Your task to perform on an android device: Open notification settings Image 0: 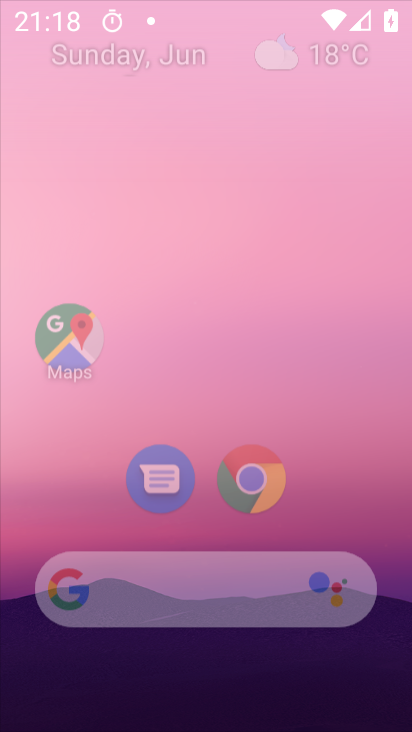
Step 0: click (333, 43)
Your task to perform on an android device: Open notification settings Image 1: 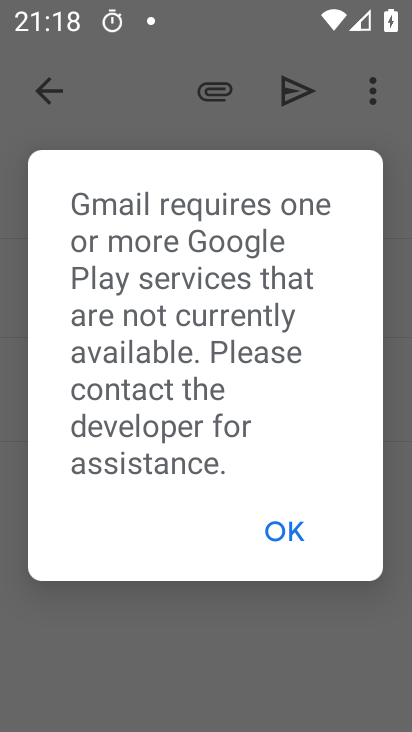
Step 1: press home button
Your task to perform on an android device: Open notification settings Image 2: 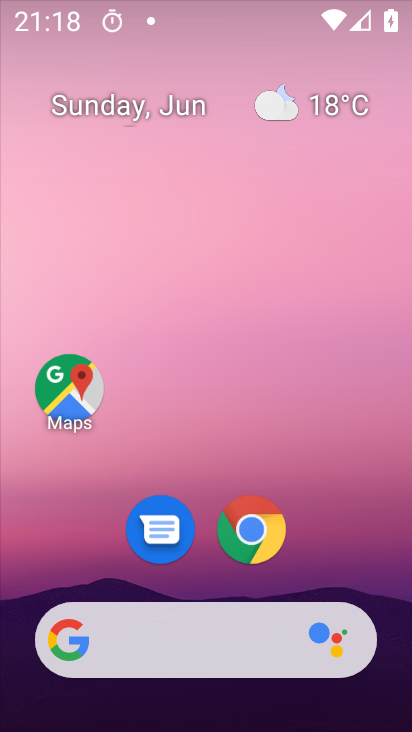
Step 2: drag from (311, 513) to (315, 44)
Your task to perform on an android device: Open notification settings Image 3: 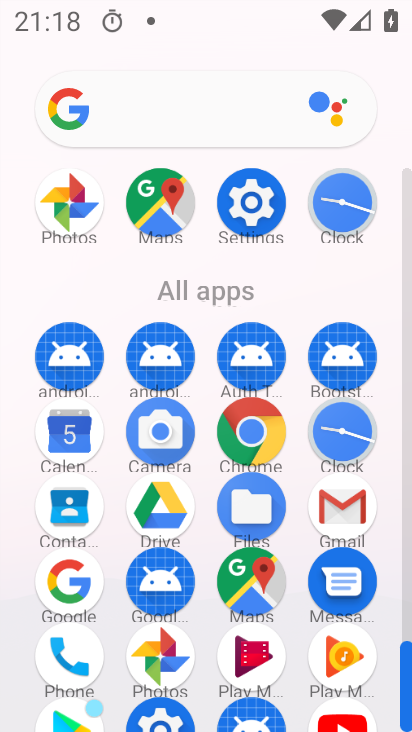
Step 3: click (252, 198)
Your task to perform on an android device: Open notification settings Image 4: 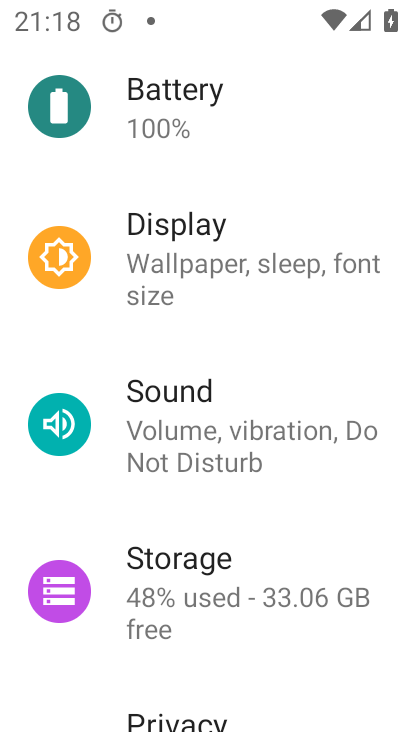
Step 4: drag from (267, 228) to (344, 620)
Your task to perform on an android device: Open notification settings Image 5: 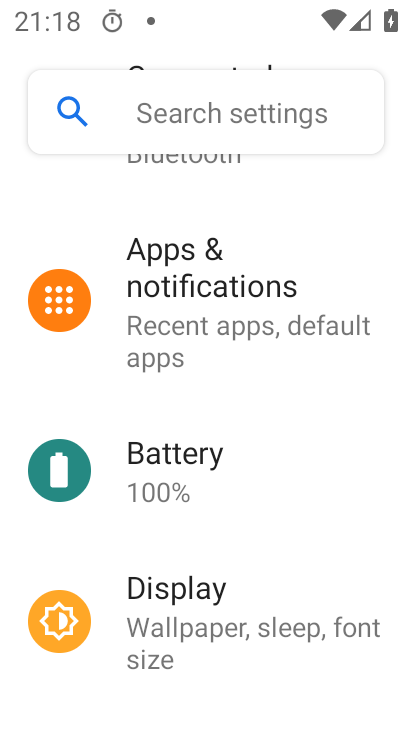
Step 5: click (214, 320)
Your task to perform on an android device: Open notification settings Image 6: 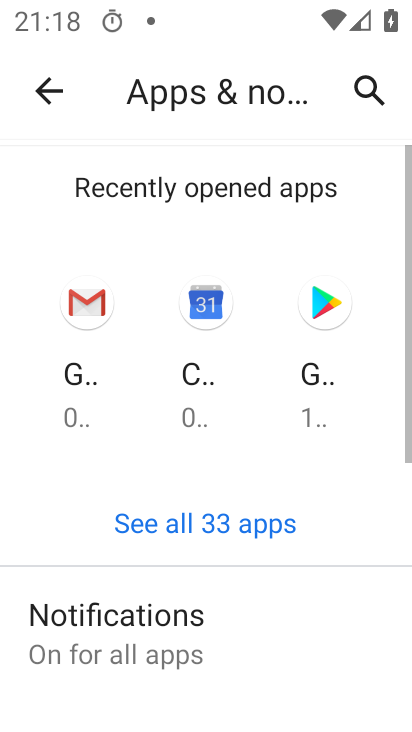
Step 6: click (184, 629)
Your task to perform on an android device: Open notification settings Image 7: 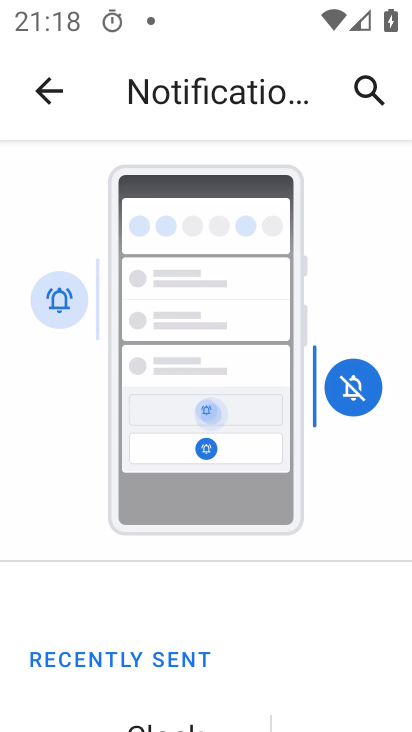
Step 7: task complete